Your task to perform on an android device: Go to CNN.com Image 0: 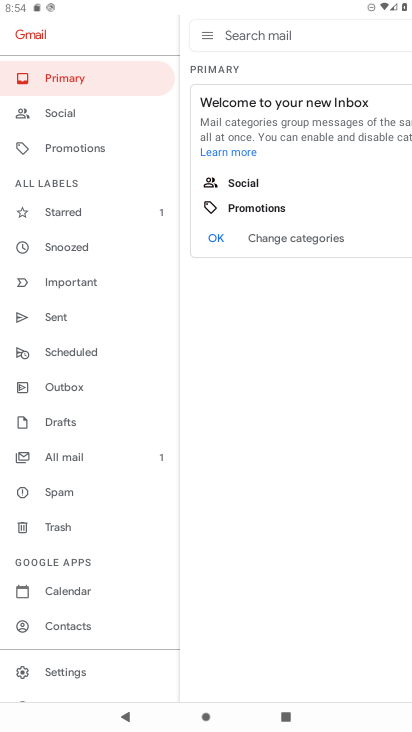
Step 0: press home button
Your task to perform on an android device: Go to CNN.com Image 1: 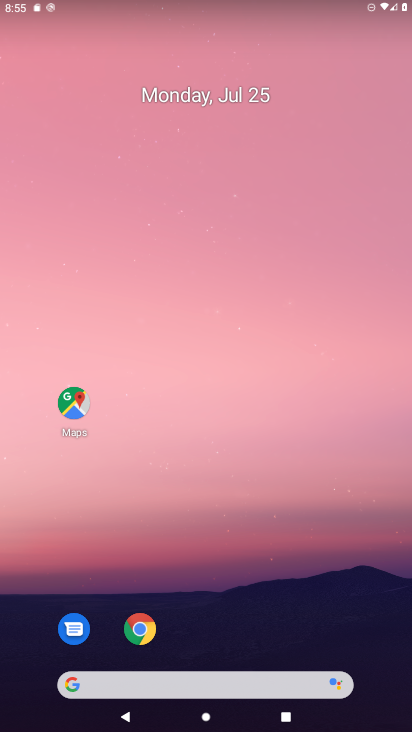
Step 1: click (148, 639)
Your task to perform on an android device: Go to CNN.com Image 2: 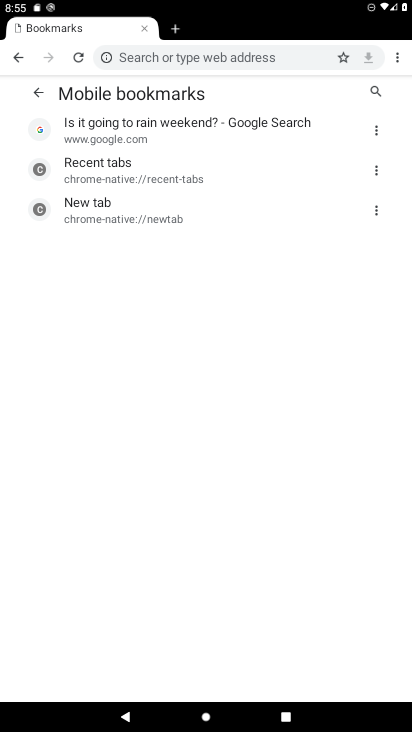
Step 2: click (219, 54)
Your task to perform on an android device: Go to CNN.com Image 3: 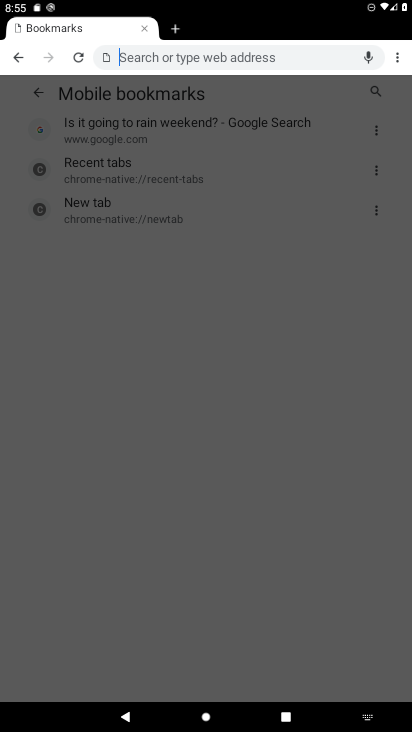
Step 3: type "cnn.com"
Your task to perform on an android device: Go to CNN.com Image 4: 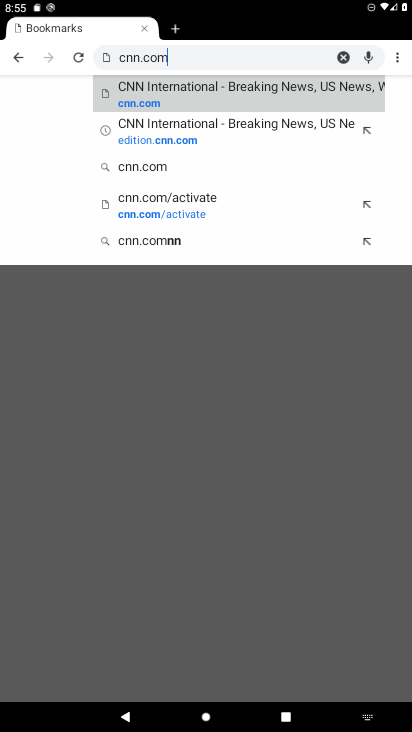
Step 4: click (136, 167)
Your task to perform on an android device: Go to CNN.com Image 5: 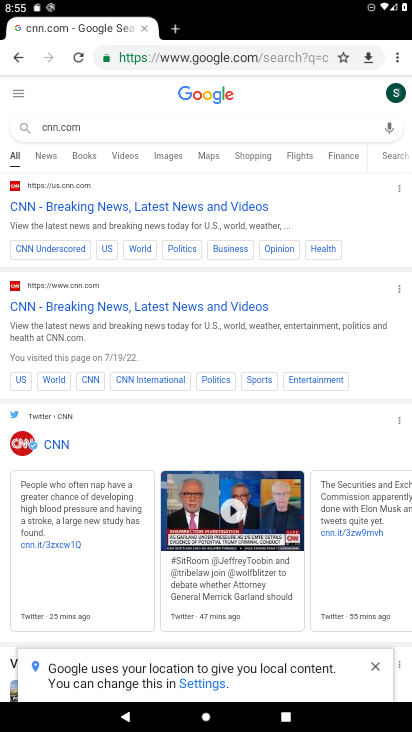
Step 5: click (62, 207)
Your task to perform on an android device: Go to CNN.com Image 6: 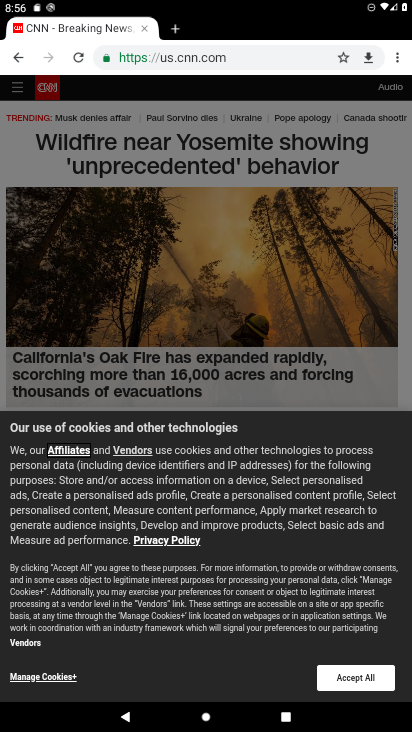
Step 6: task complete